Your task to perform on an android device: check storage Image 0: 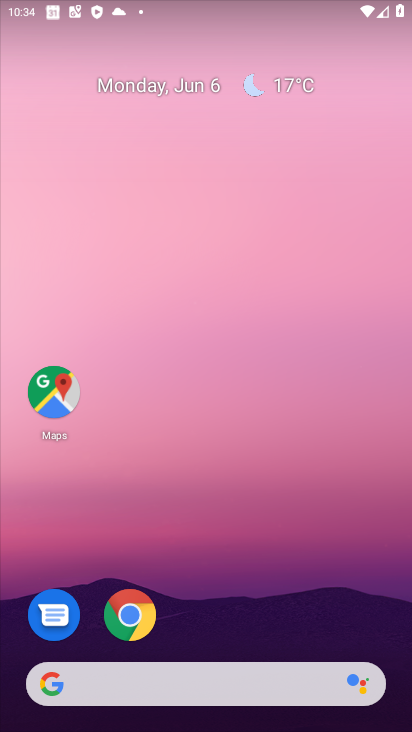
Step 0: drag from (230, 614) to (312, 17)
Your task to perform on an android device: check storage Image 1: 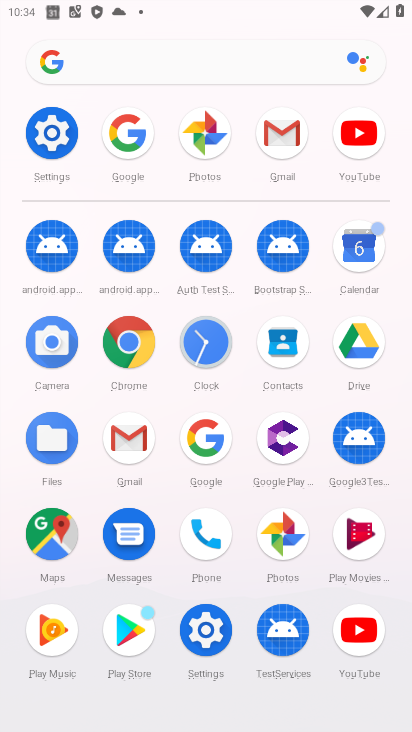
Step 1: click (47, 126)
Your task to perform on an android device: check storage Image 2: 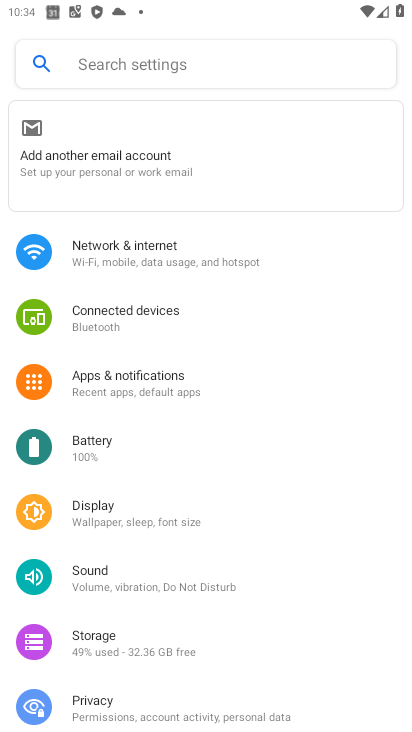
Step 2: click (115, 640)
Your task to perform on an android device: check storage Image 3: 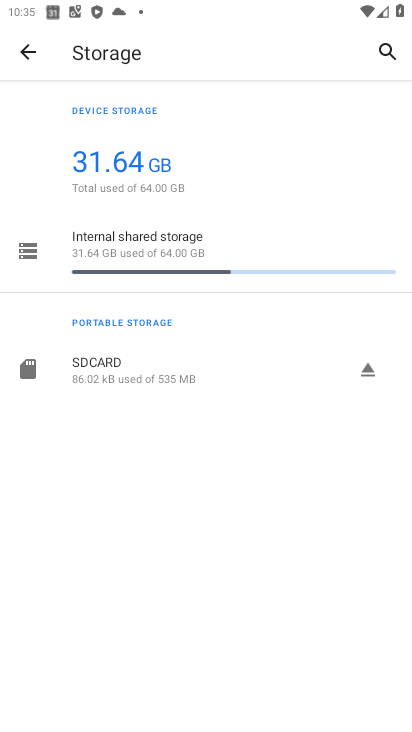
Step 3: task complete